Your task to perform on an android device: toggle notification dots Image 0: 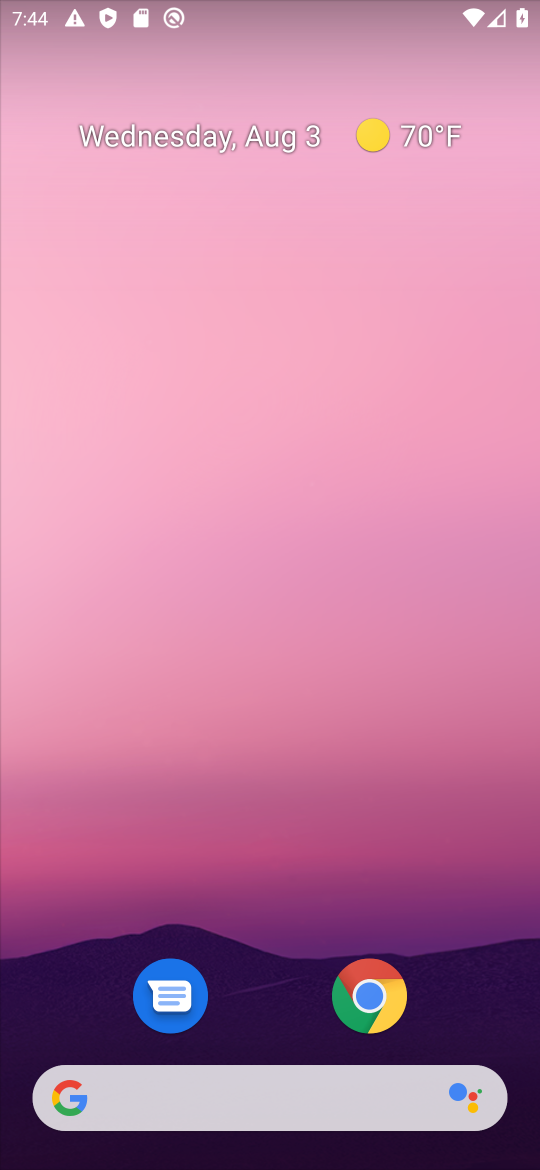
Step 0: drag from (276, 954) to (221, 2)
Your task to perform on an android device: toggle notification dots Image 1: 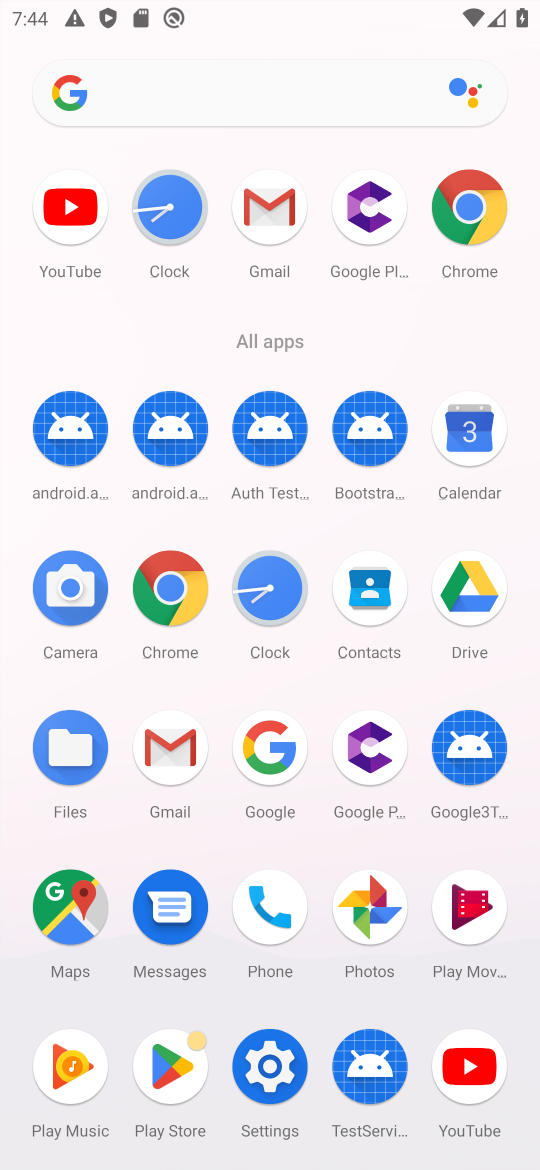
Step 1: click (276, 1061)
Your task to perform on an android device: toggle notification dots Image 2: 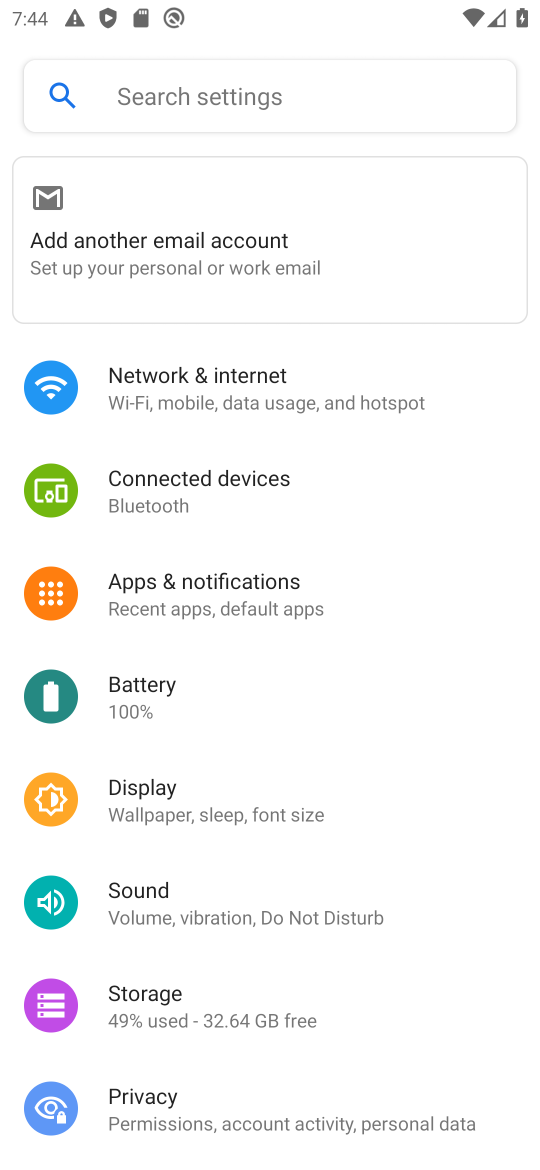
Step 2: click (242, 581)
Your task to perform on an android device: toggle notification dots Image 3: 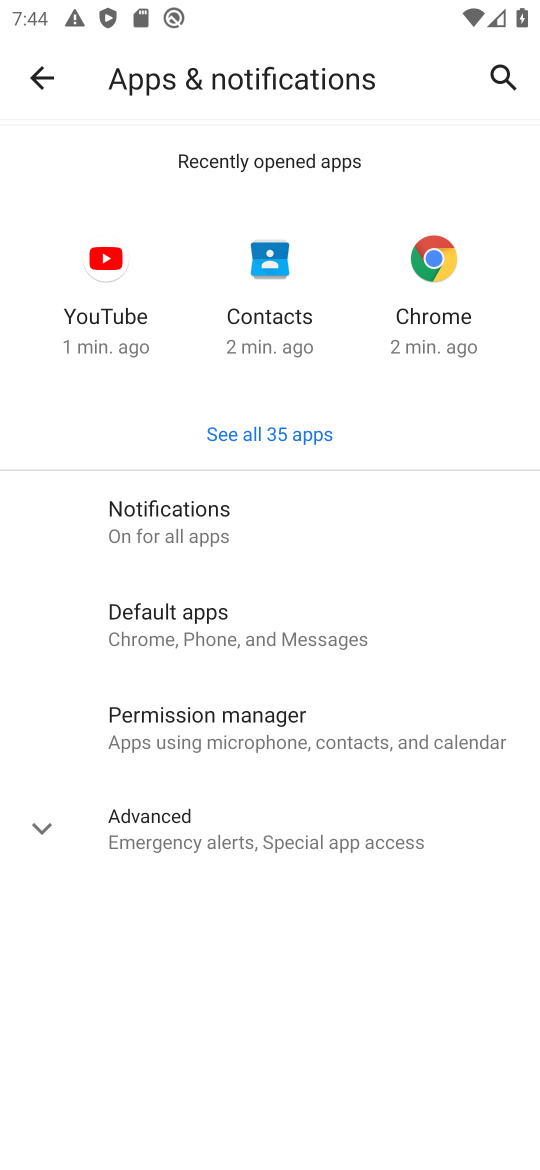
Step 3: click (215, 520)
Your task to perform on an android device: toggle notification dots Image 4: 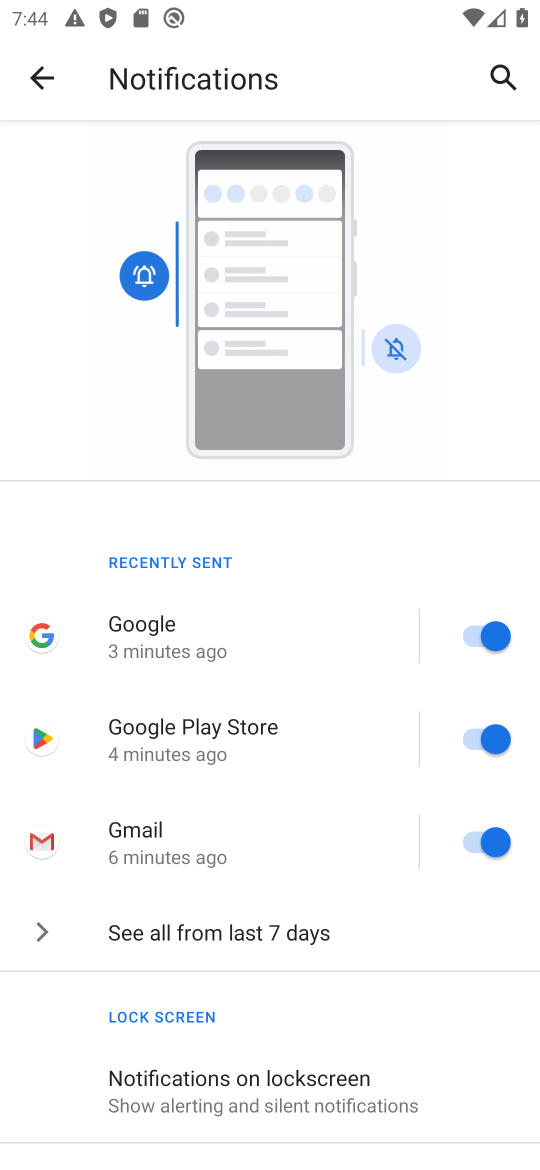
Step 4: drag from (295, 854) to (260, 337)
Your task to perform on an android device: toggle notification dots Image 5: 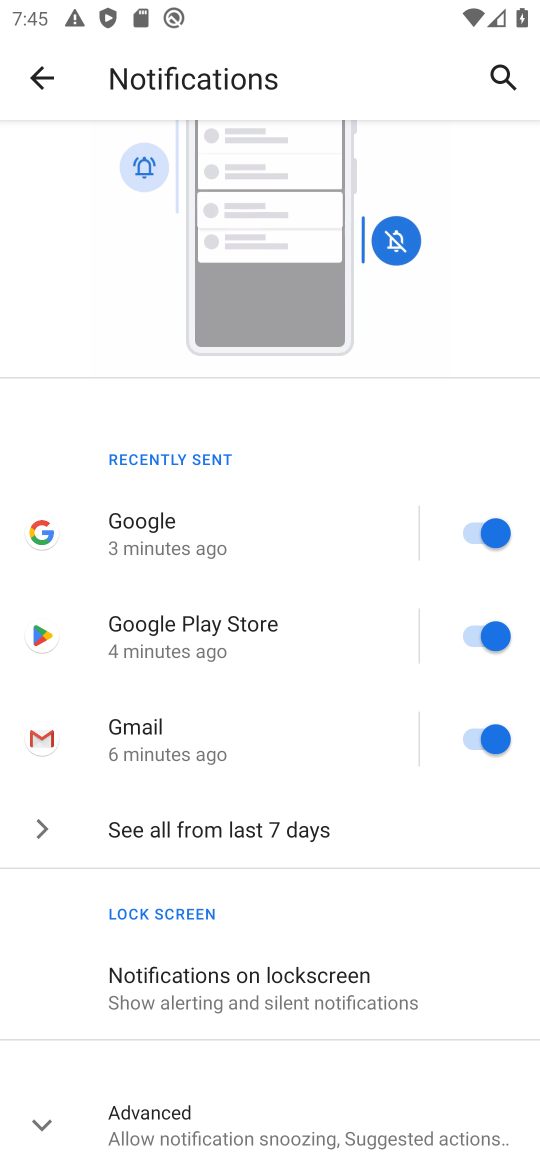
Step 5: click (44, 1111)
Your task to perform on an android device: toggle notification dots Image 6: 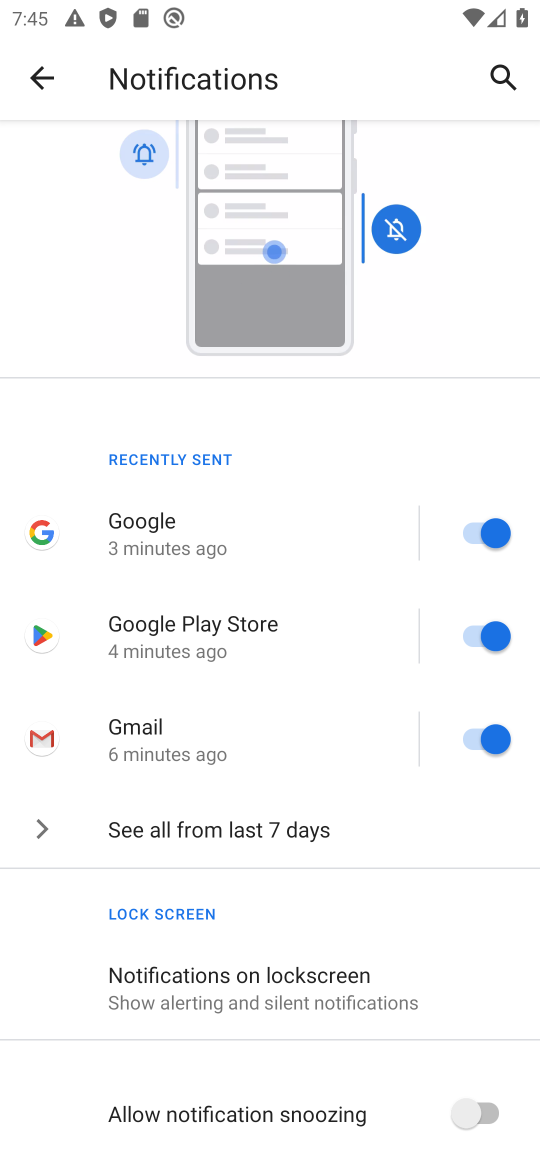
Step 6: drag from (356, 891) to (326, 468)
Your task to perform on an android device: toggle notification dots Image 7: 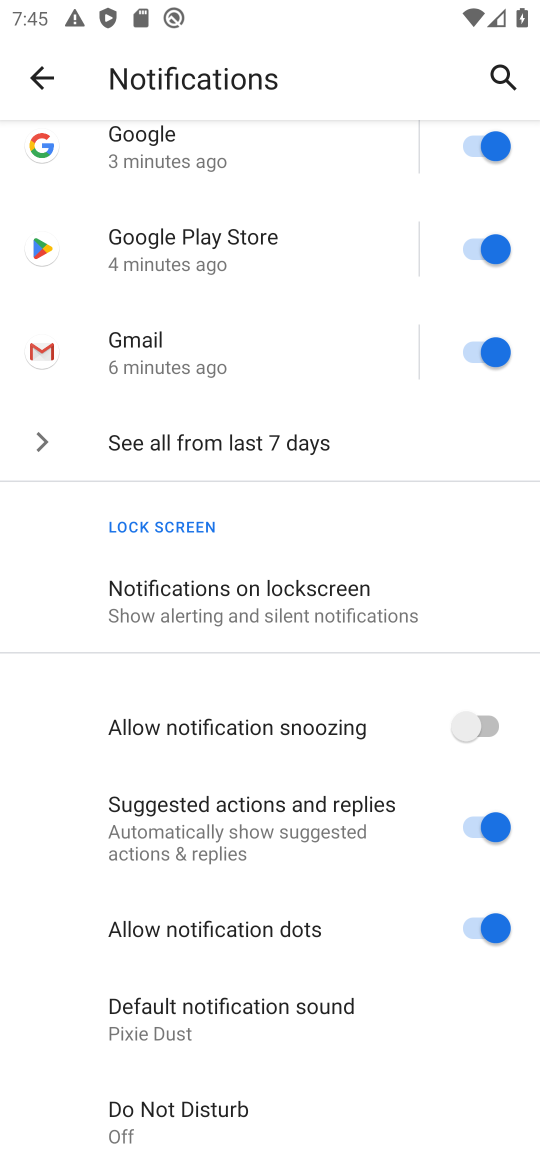
Step 7: click (474, 919)
Your task to perform on an android device: toggle notification dots Image 8: 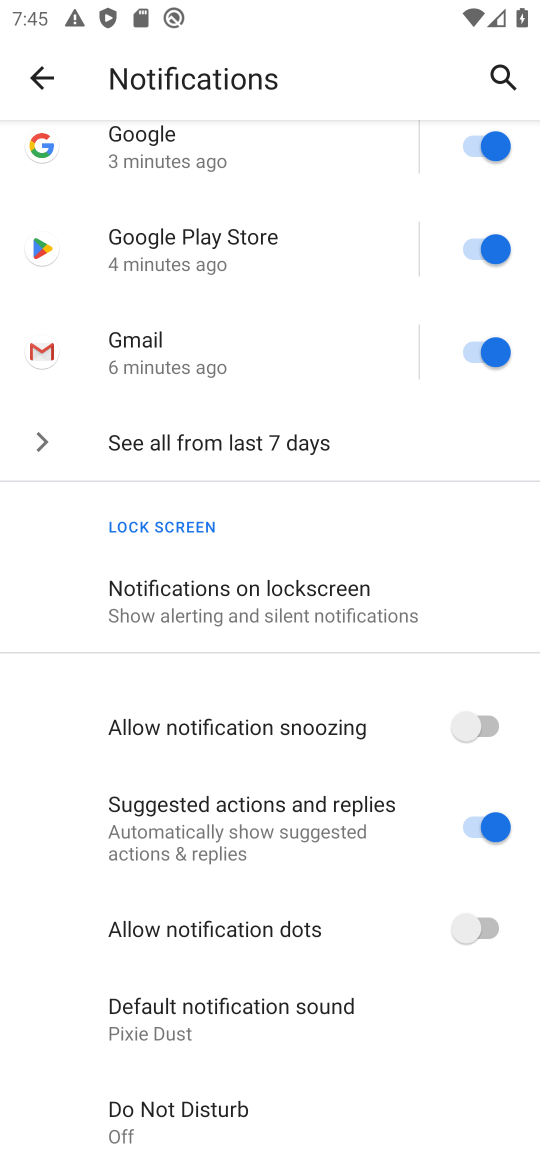
Step 8: task complete